Your task to perform on an android device: Open calendar and show me the fourth week of next month Image 0: 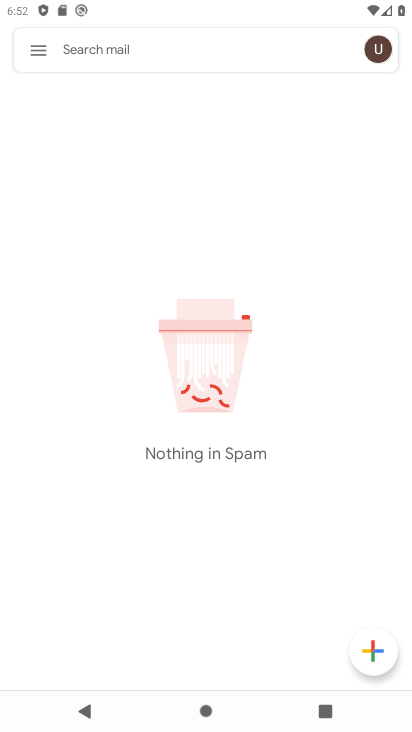
Step 0: press home button
Your task to perform on an android device: Open calendar and show me the fourth week of next month Image 1: 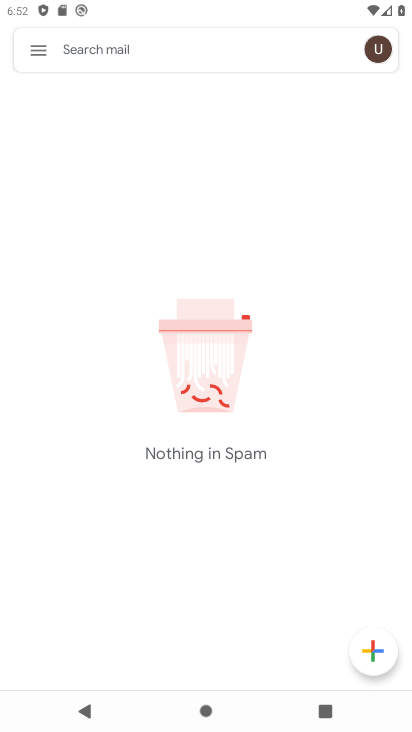
Step 1: drag from (370, 592) to (268, 0)
Your task to perform on an android device: Open calendar and show me the fourth week of next month Image 2: 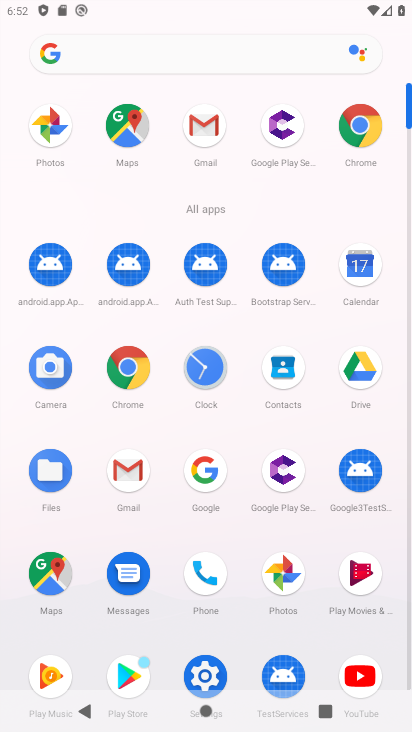
Step 2: click (356, 274)
Your task to perform on an android device: Open calendar and show me the fourth week of next month Image 3: 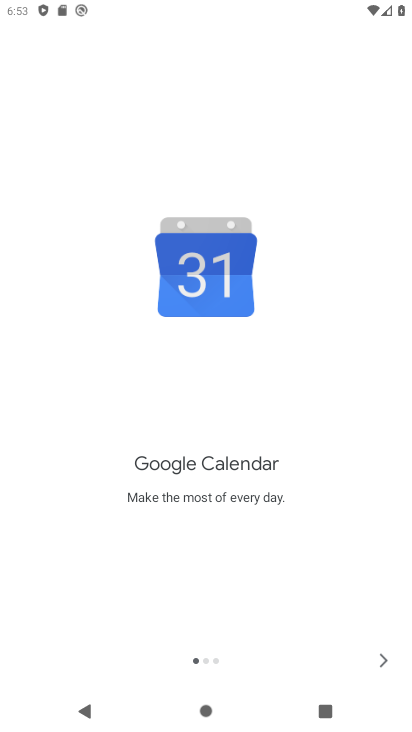
Step 3: click (386, 660)
Your task to perform on an android device: Open calendar and show me the fourth week of next month Image 4: 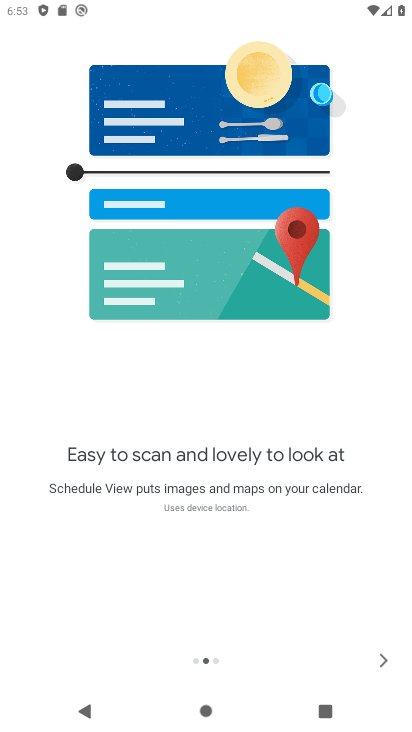
Step 4: click (386, 658)
Your task to perform on an android device: Open calendar and show me the fourth week of next month Image 5: 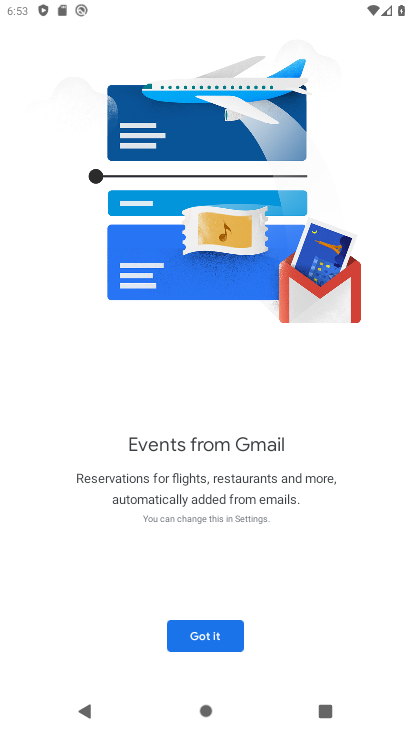
Step 5: click (200, 636)
Your task to perform on an android device: Open calendar and show me the fourth week of next month Image 6: 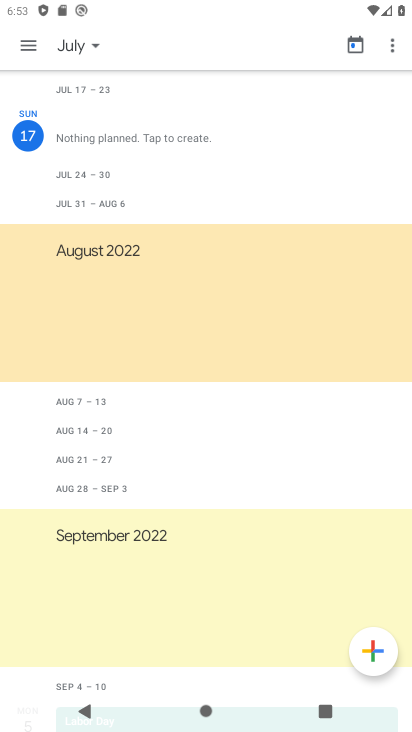
Step 6: click (58, 33)
Your task to perform on an android device: Open calendar and show me the fourth week of next month Image 7: 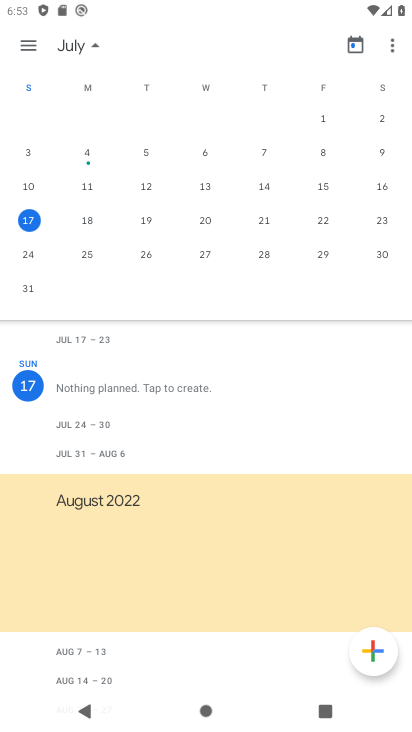
Step 7: drag from (334, 175) to (5, 182)
Your task to perform on an android device: Open calendar and show me the fourth week of next month Image 8: 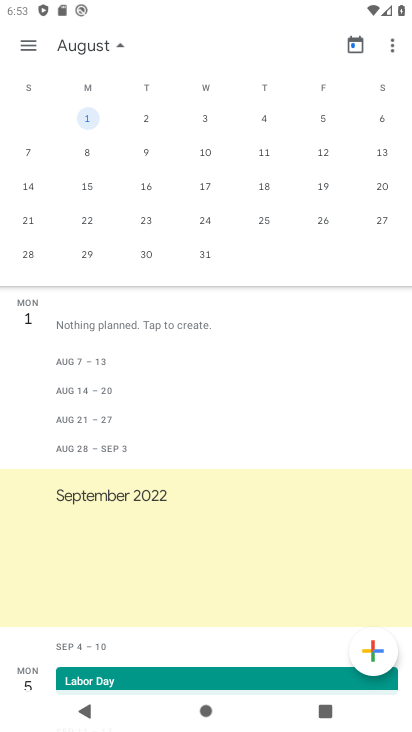
Step 8: click (22, 257)
Your task to perform on an android device: Open calendar and show me the fourth week of next month Image 9: 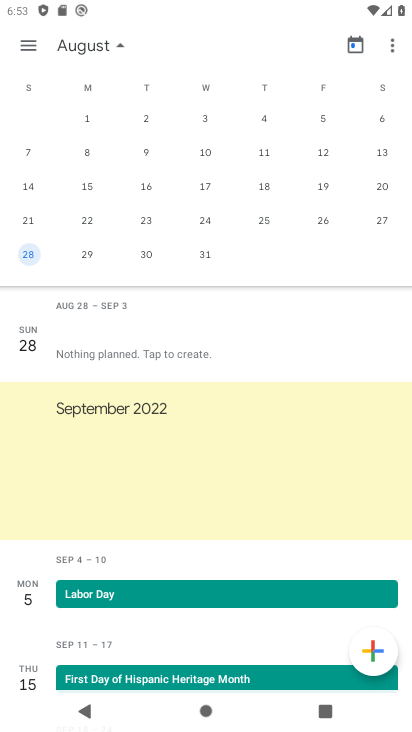
Step 9: task complete